Your task to perform on an android device: open a bookmark in the chrome app Image 0: 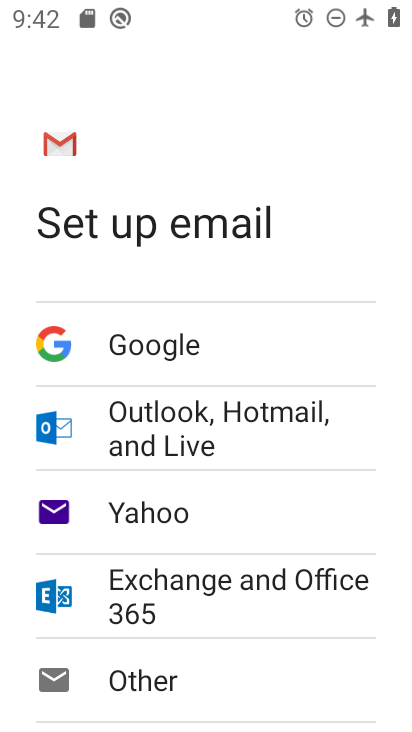
Step 0: press home button
Your task to perform on an android device: open a bookmark in the chrome app Image 1: 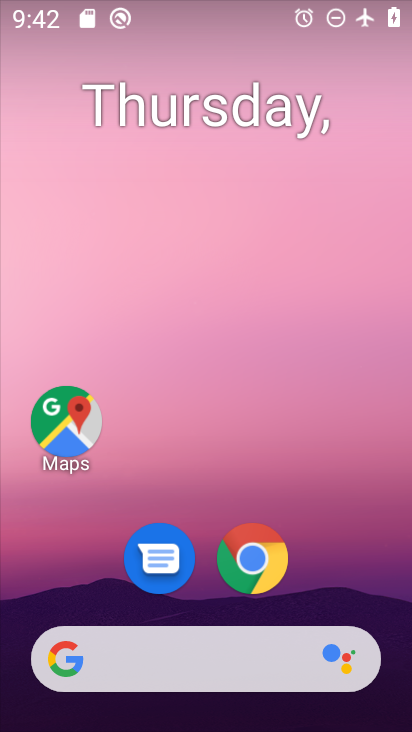
Step 1: click (258, 559)
Your task to perform on an android device: open a bookmark in the chrome app Image 2: 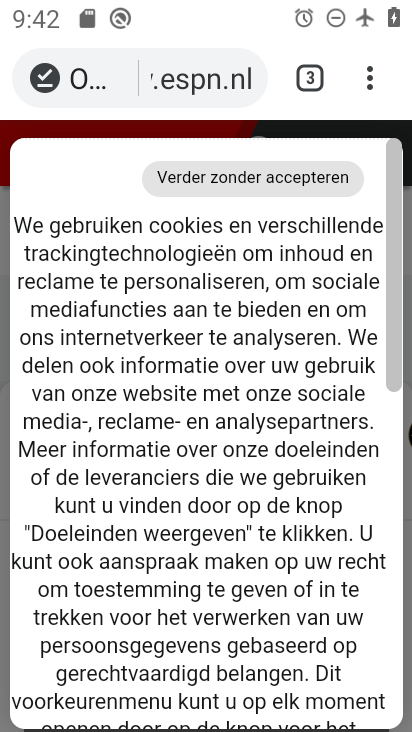
Step 2: click (368, 81)
Your task to perform on an android device: open a bookmark in the chrome app Image 3: 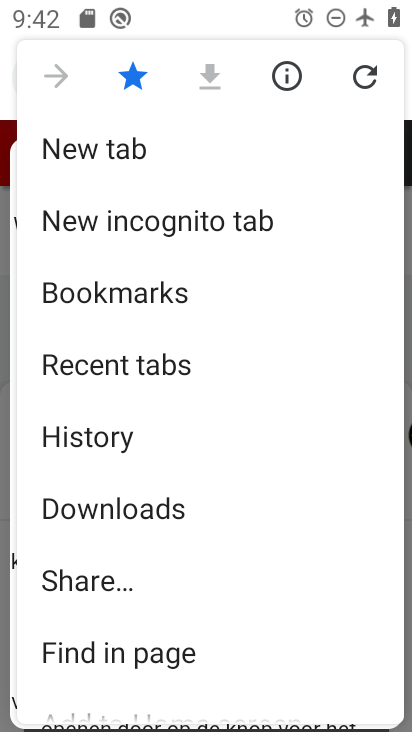
Step 3: click (94, 308)
Your task to perform on an android device: open a bookmark in the chrome app Image 4: 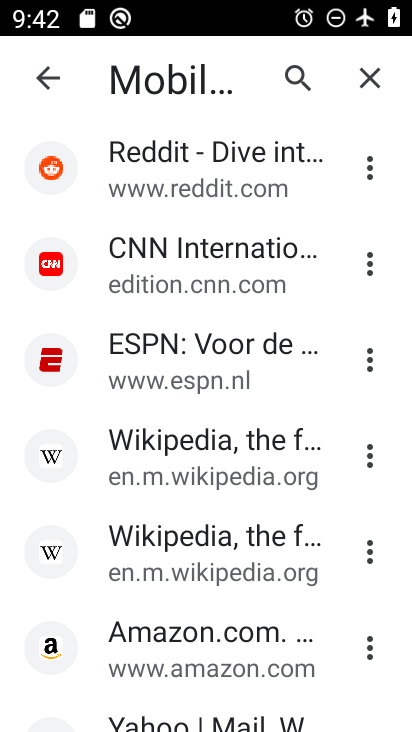
Step 4: click (187, 264)
Your task to perform on an android device: open a bookmark in the chrome app Image 5: 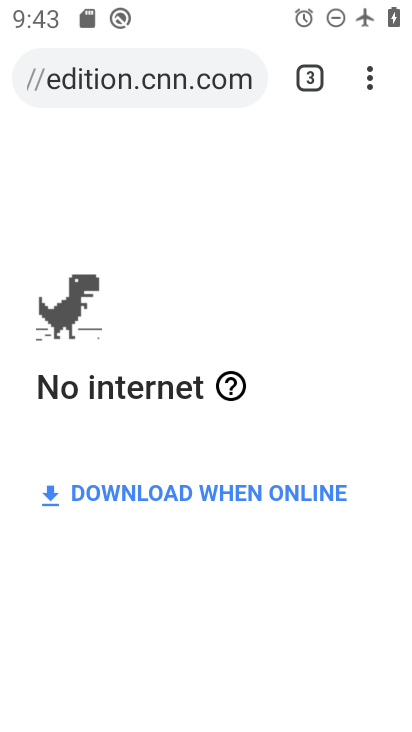
Step 5: task complete